Your task to perform on an android device: Show the shopping cart on walmart.com. Image 0: 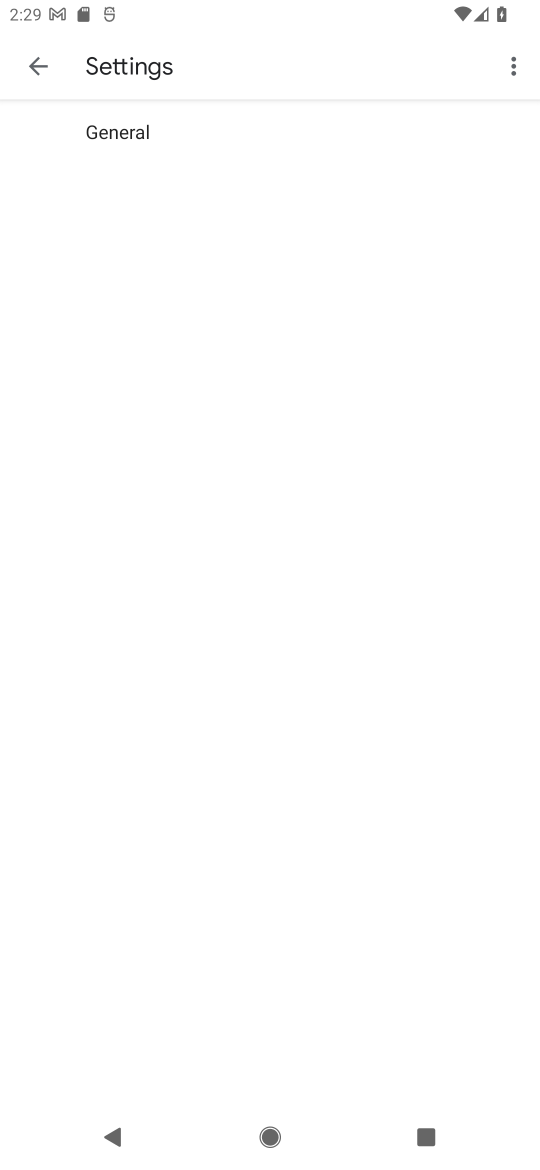
Step 0: press home button
Your task to perform on an android device: Show the shopping cart on walmart.com. Image 1: 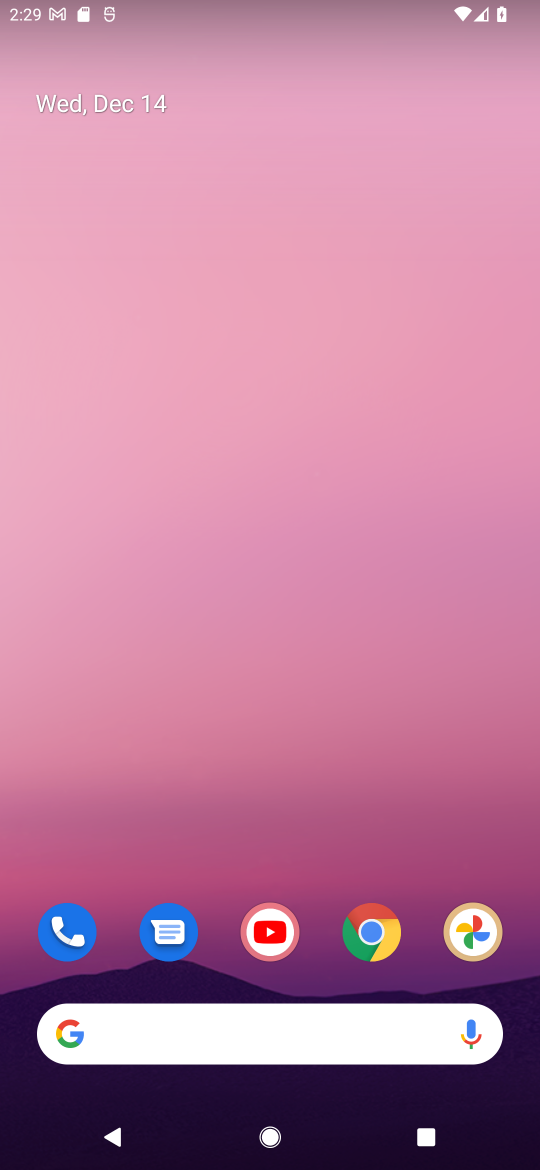
Step 1: click (264, 1043)
Your task to perform on an android device: Show the shopping cart on walmart.com. Image 2: 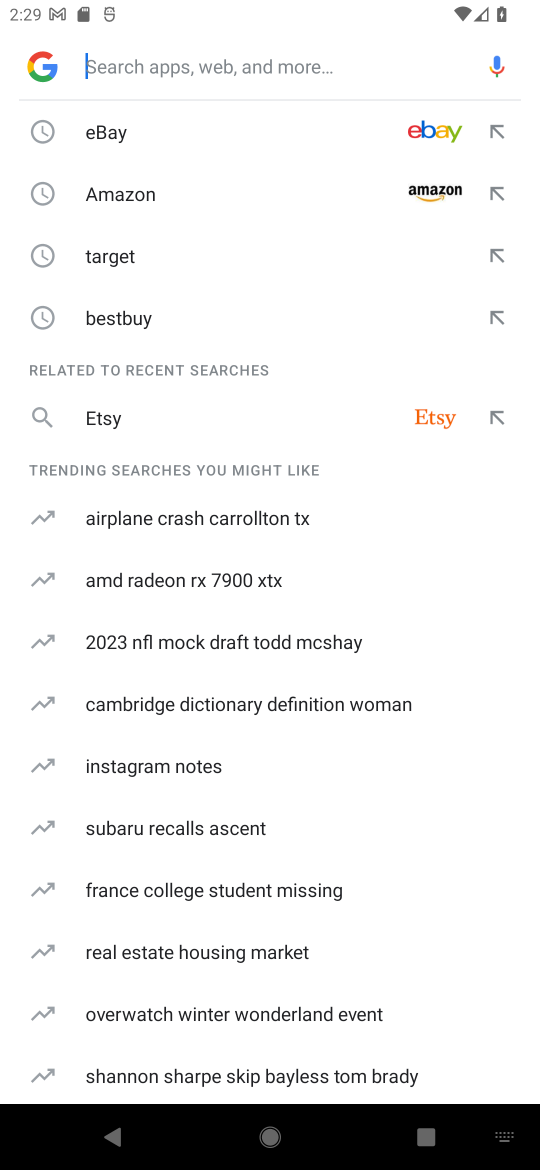
Step 2: type "walmart.com"
Your task to perform on an android device: Show the shopping cart on walmart.com. Image 3: 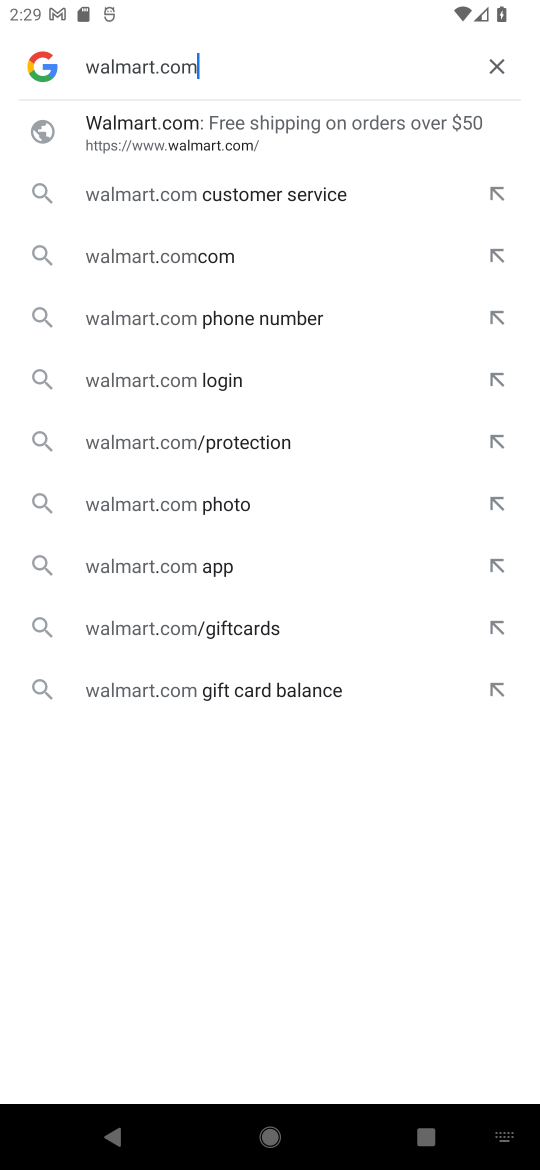
Step 3: click (162, 127)
Your task to perform on an android device: Show the shopping cart on walmart.com. Image 4: 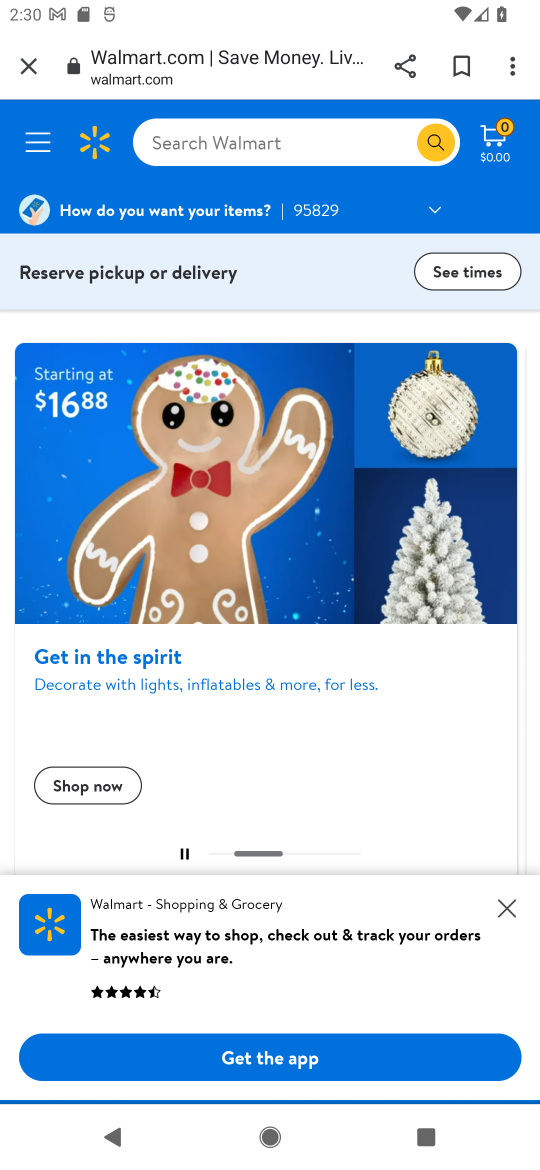
Step 4: click (509, 910)
Your task to perform on an android device: Show the shopping cart on walmart.com. Image 5: 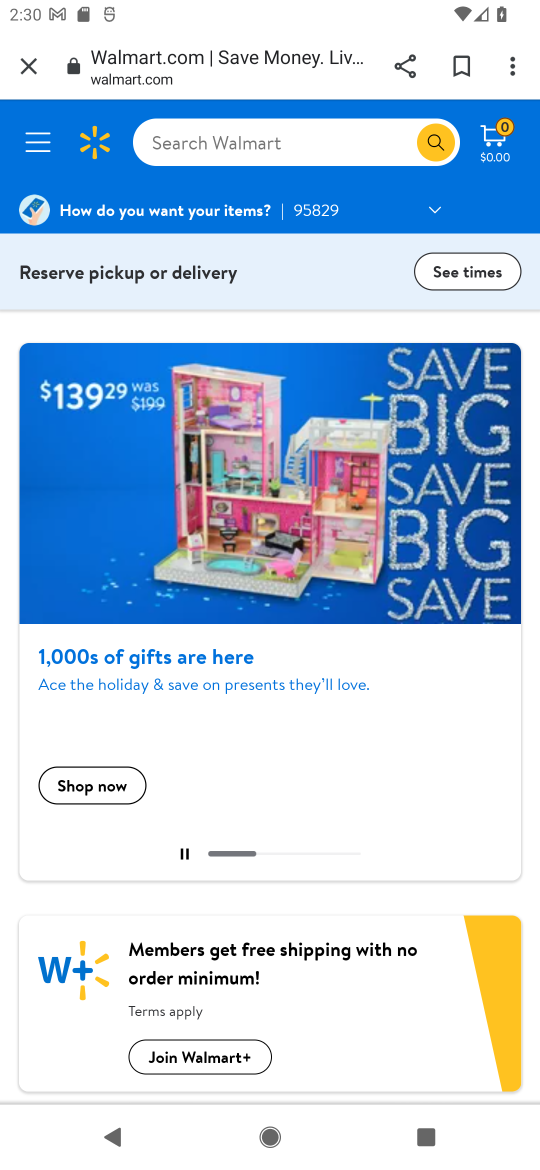
Step 5: drag from (353, 745) to (316, 562)
Your task to perform on an android device: Show the shopping cart on walmart.com. Image 6: 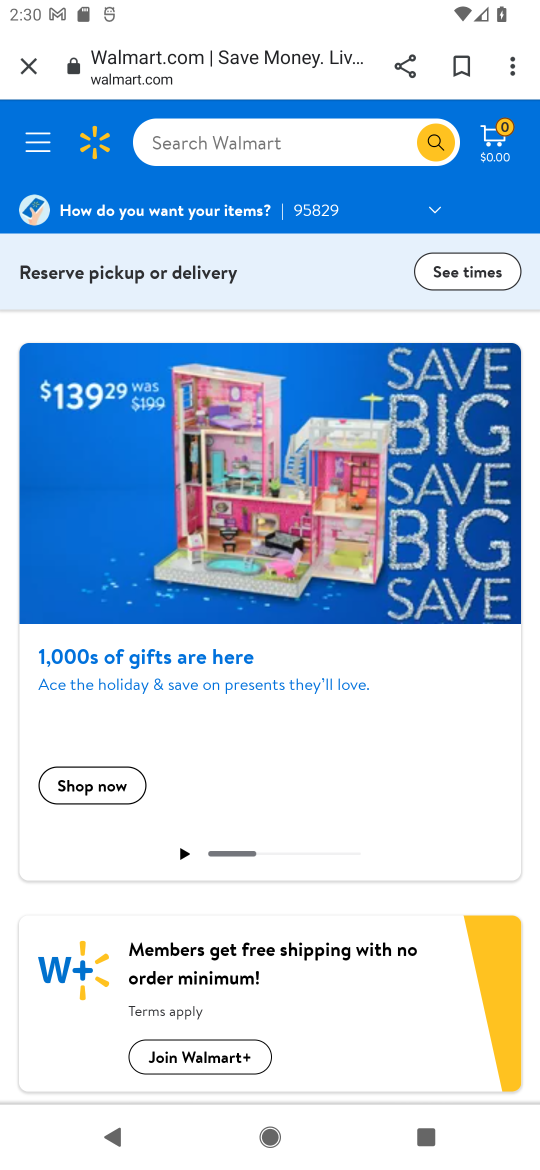
Step 6: click (492, 130)
Your task to perform on an android device: Show the shopping cart on walmart.com. Image 7: 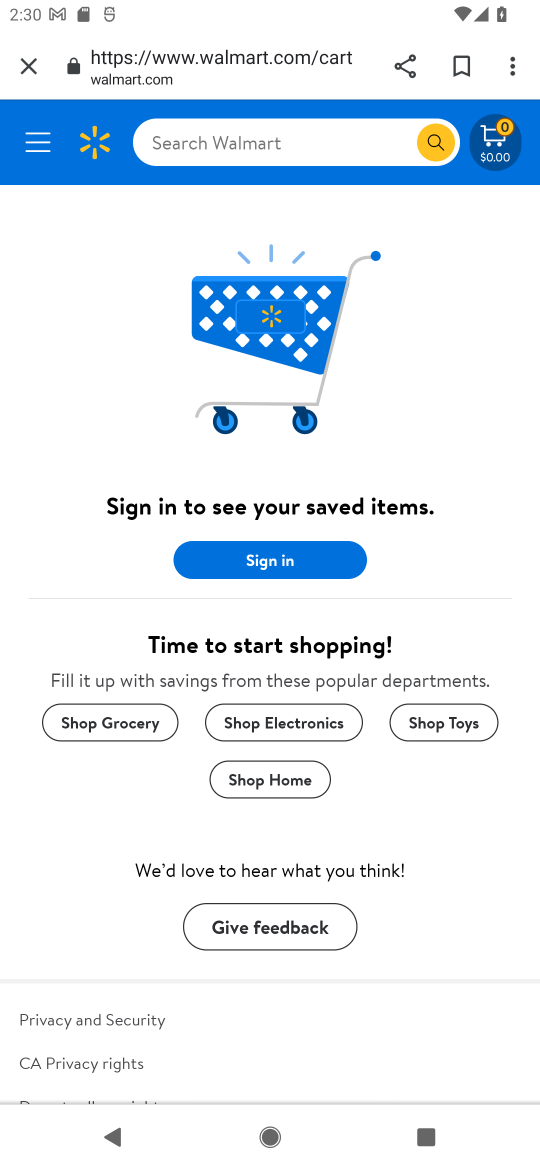
Step 7: task complete